Your task to perform on an android device: Show me recent news Image 0: 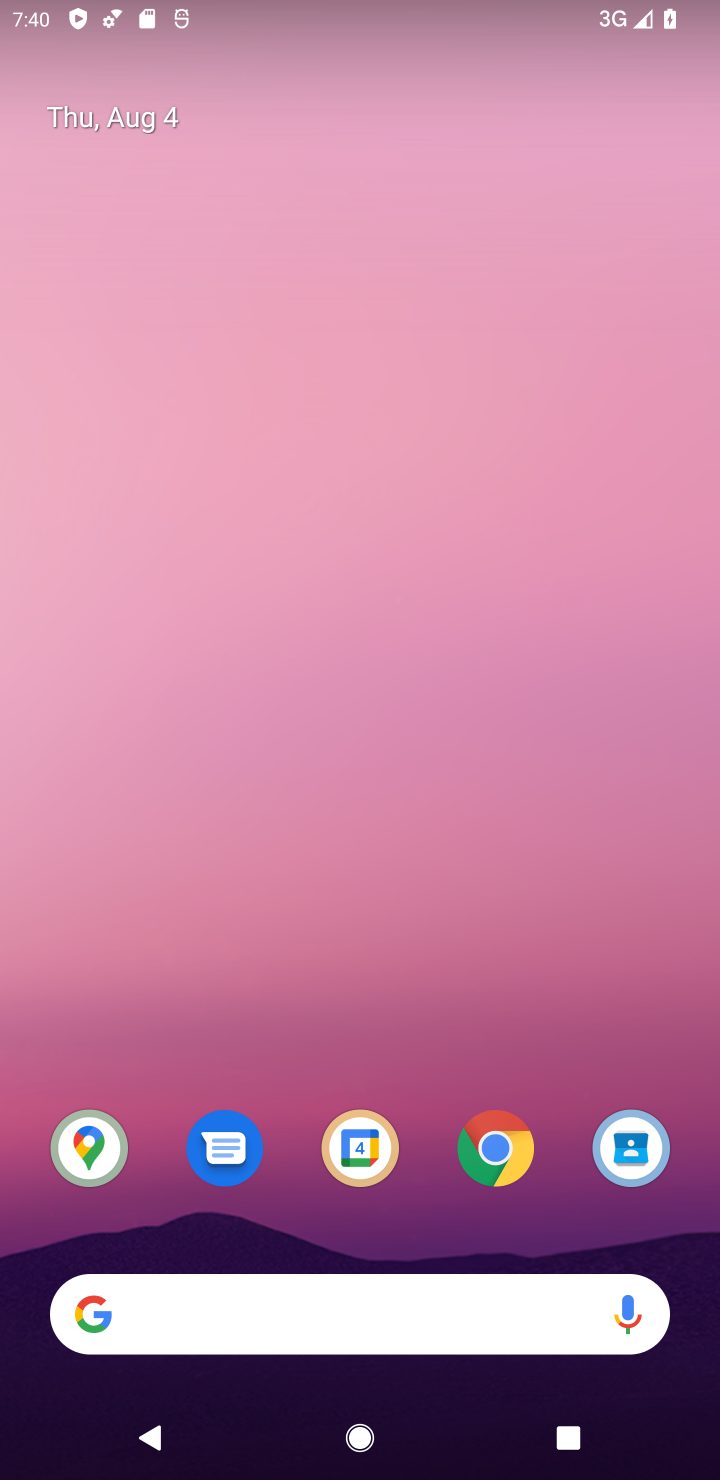
Step 0: click (490, 1131)
Your task to perform on an android device: Show me recent news Image 1: 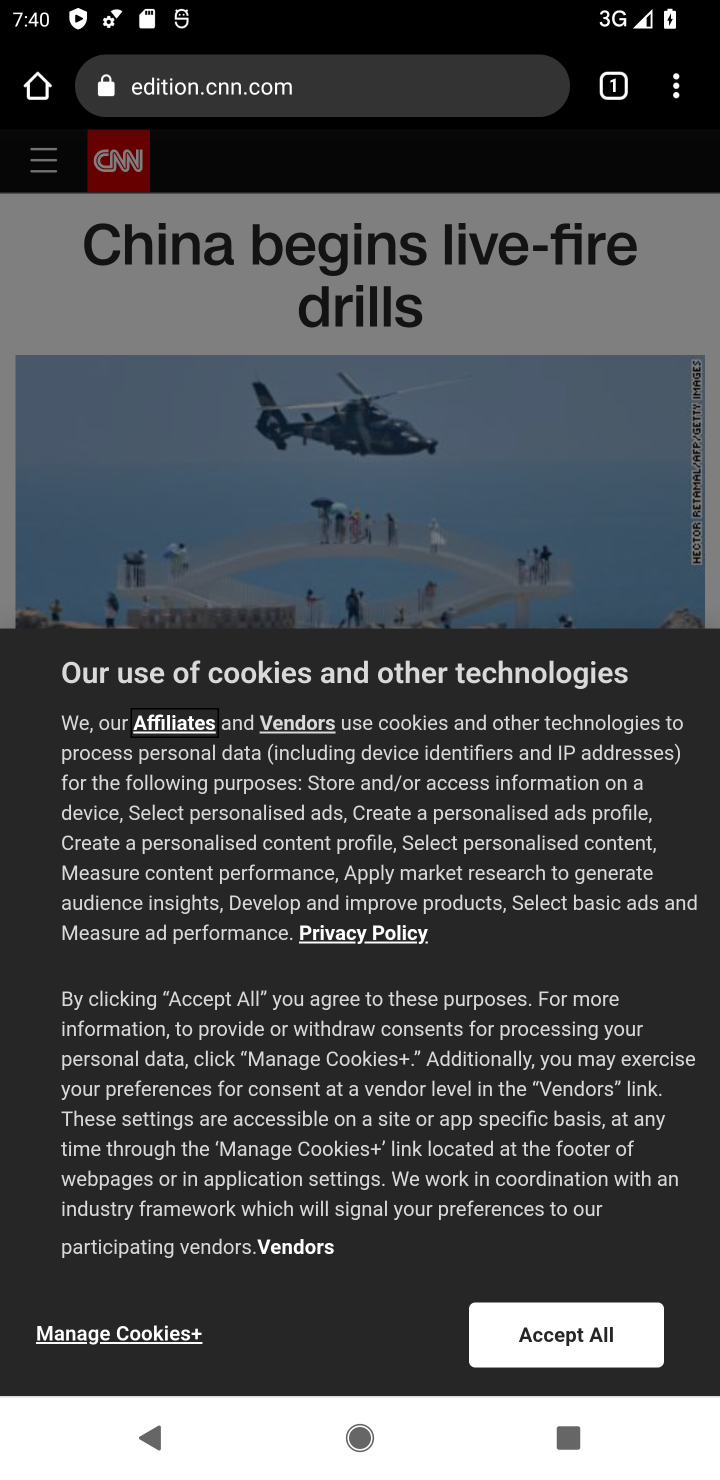
Step 1: click (407, 63)
Your task to perform on an android device: Show me recent news Image 2: 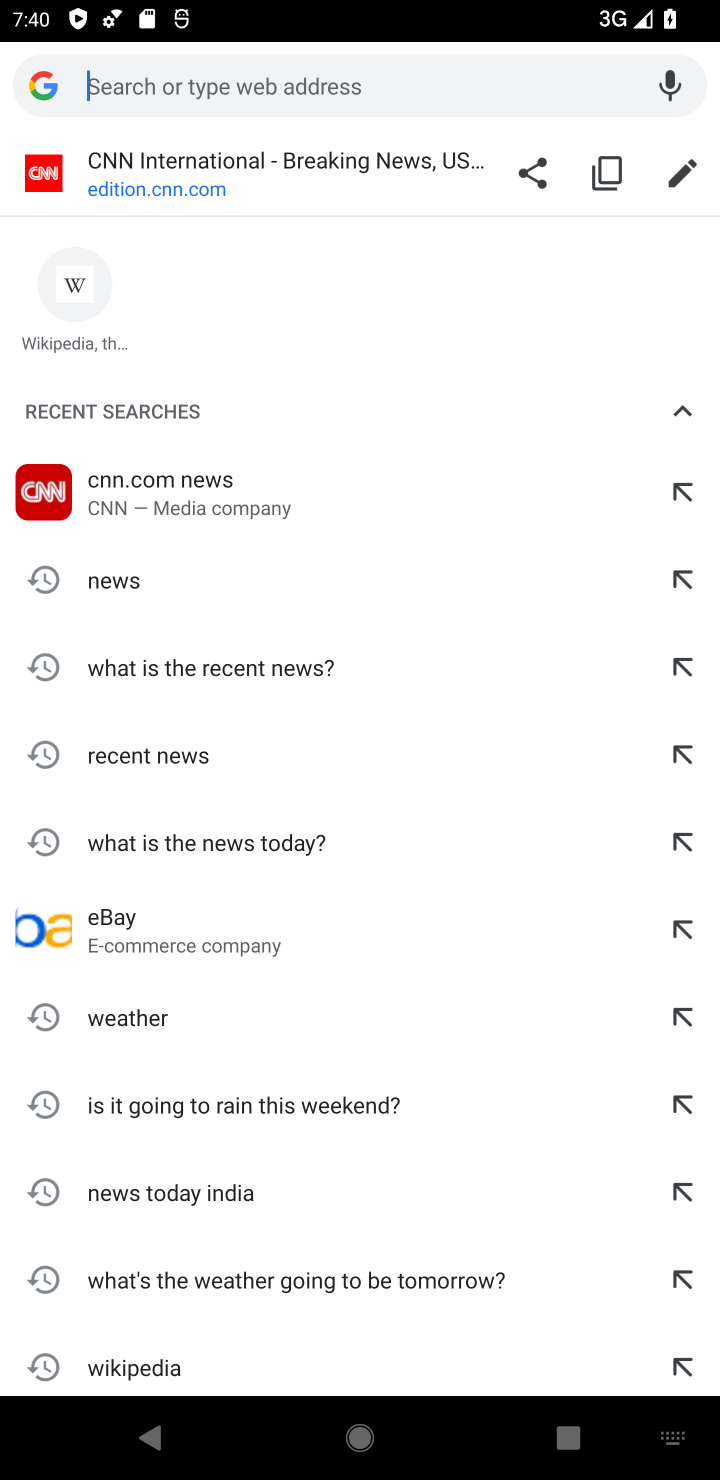
Step 2: click (261, 769)
Your task to perform on an android device: Show me recent news Image 3: 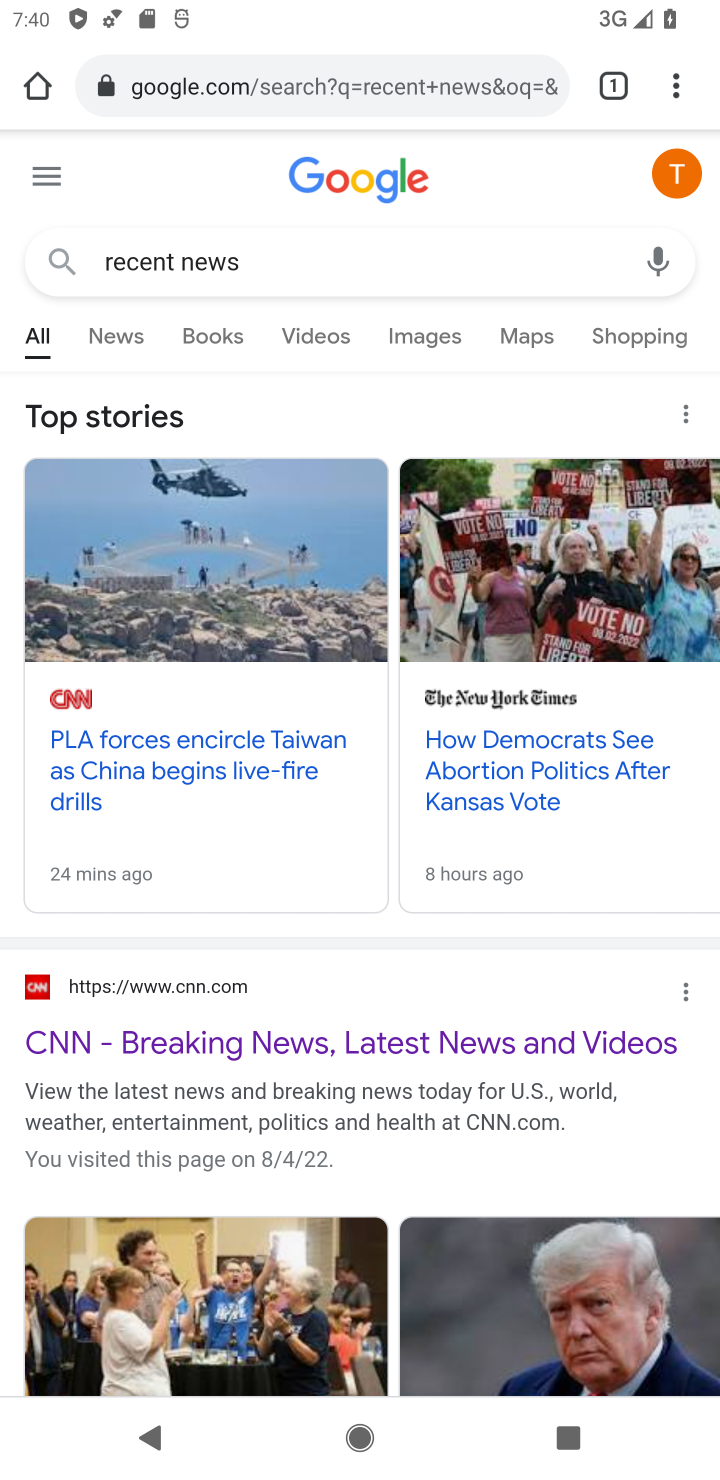
Step 3: task complete